Your task to perform on an android device: Open network settings Image 0: 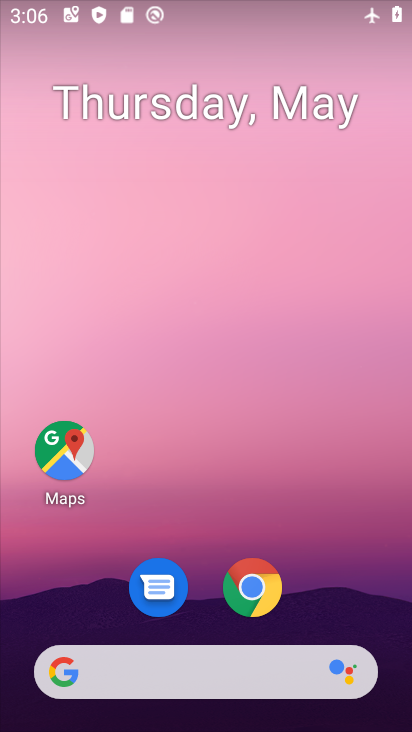
Step 0: drag from (320, 536) to (353, 254)
Your task to perform on an android device: Open network settings Image 1: 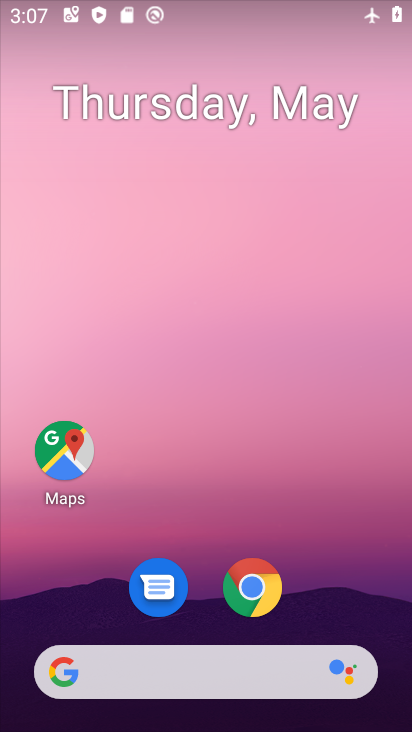
Step 1: drag from (324, 639) to (398, 65)
Your task to perform on an android device: Open network settings Image 2: 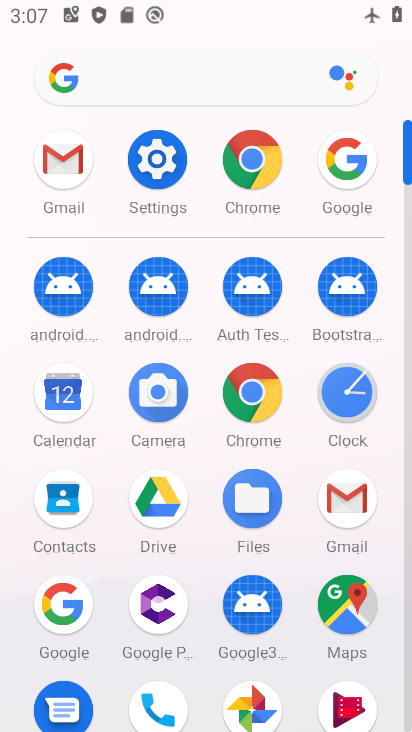
Step 2: click (156, 173)
Your task to perform on an android device: Open network settings Image 3: 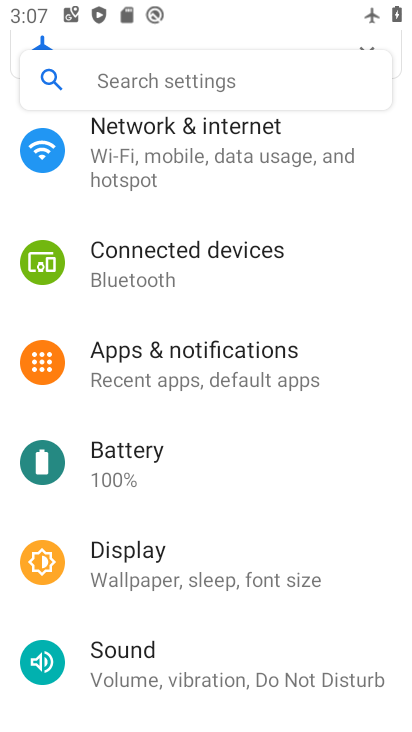
Step 3: drag from (245, 311) to (265, 605)
Your task to perform on an android device: Open network settings Image 4: 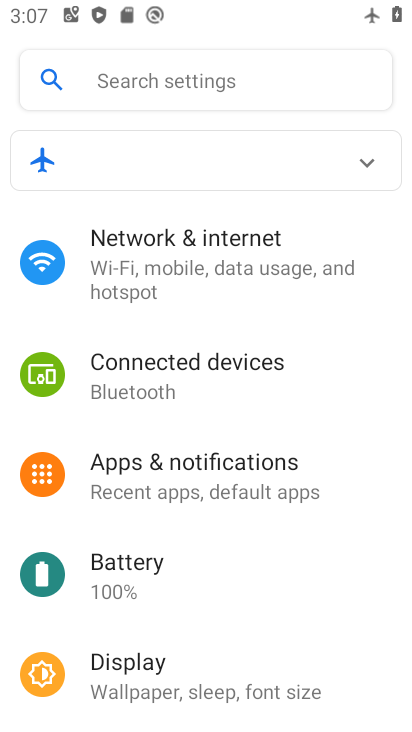
Step 4: click (297, 241)
Your task to perform on an android device: Open network settings Image 5: 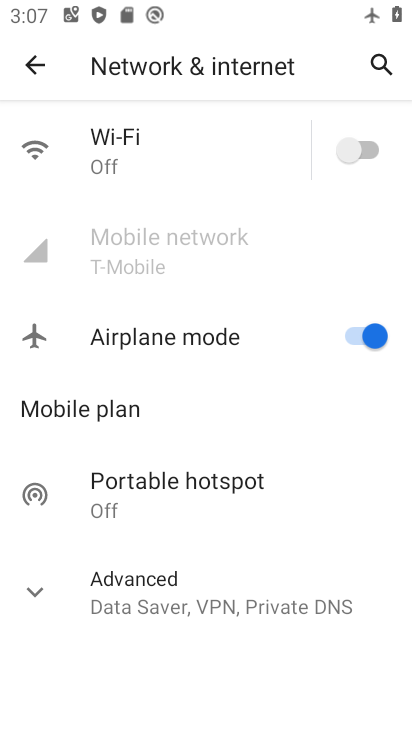
Step 5: task complete